Your task to perform on an android device: What's on my calendar tomorrow? Image 0: 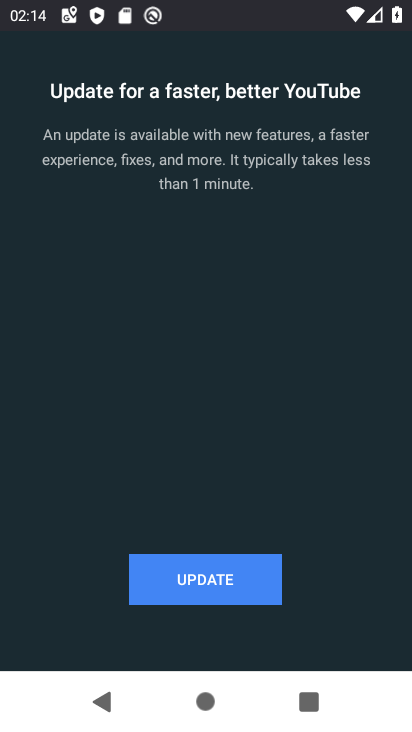
Step 0: drag from (289, 630) to (189, 300)
Your task to perform on an android device: What's on my calendar tomorrow? Image 1: 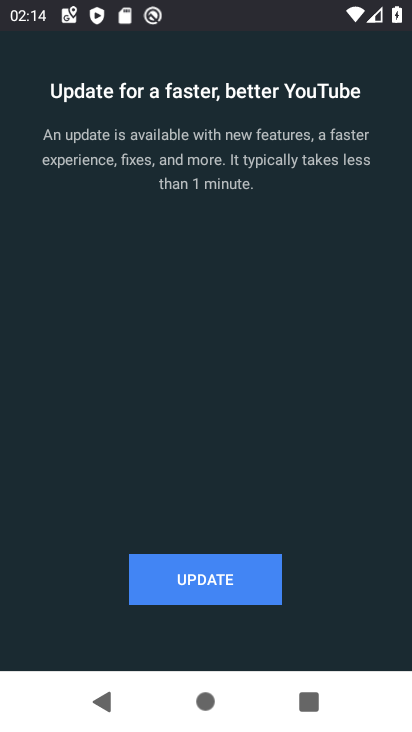
Step 1: press home button
Your task to perform on an android device: What's on my calendar tomorrow? Image 2: 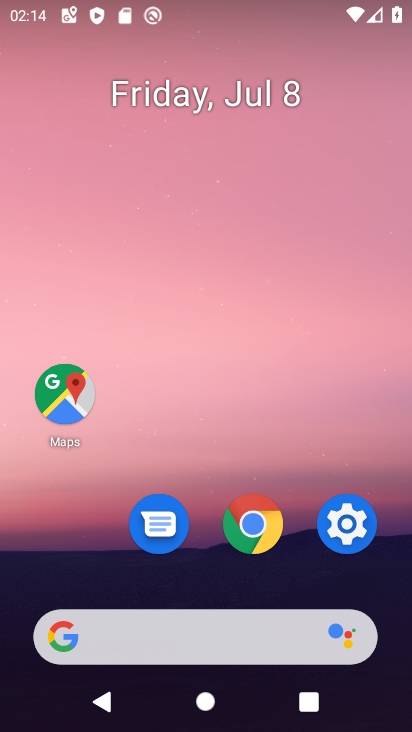
Step 2: drag from (260, 621) to (220, 249)
Your task to perform on an android device: What's on my calendar tomorrow? Image 3: 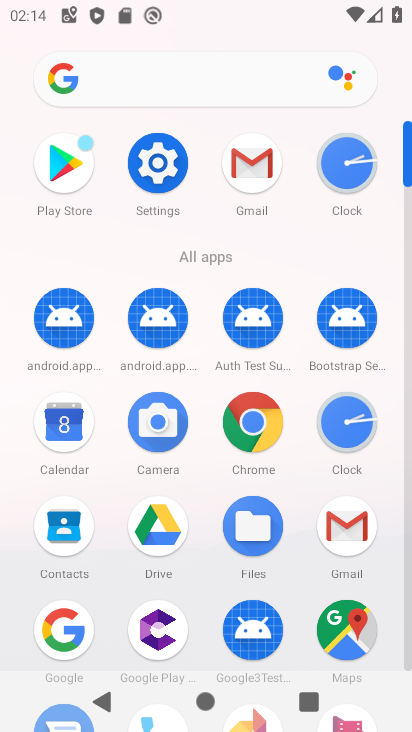
Step 3: drag from (252, 157) to (95, 563)
Your task to perform on an android device: What's on my calendar tomorrow? Image 4: 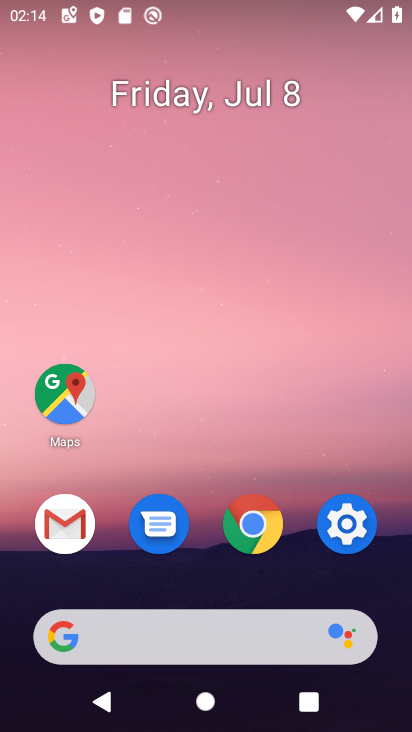
Step 4: click (68, 526)
Your task to perform on an android device: What's on my calendar tomorrow? Image 5: 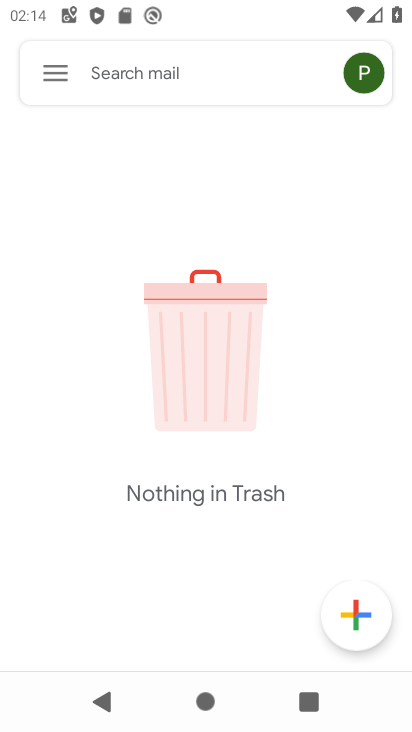
Step 5: press home button
Your task to perform on an android device: What's on my calendar tomorrow? Image 6: 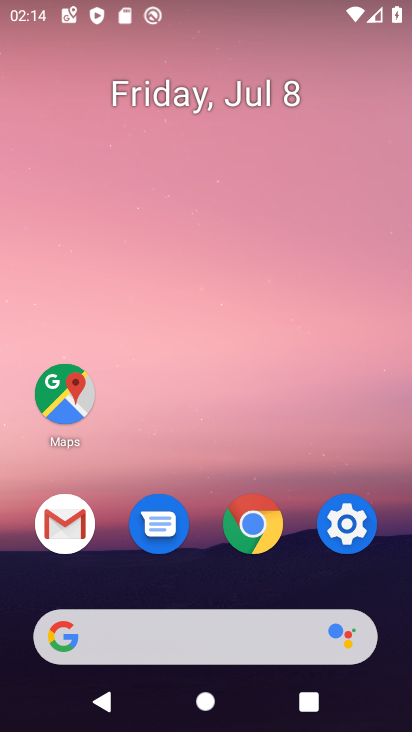
Step 6: click (148, 619)
Your task to perform on an android device: What's on my calendar tomorrow? Image 7: 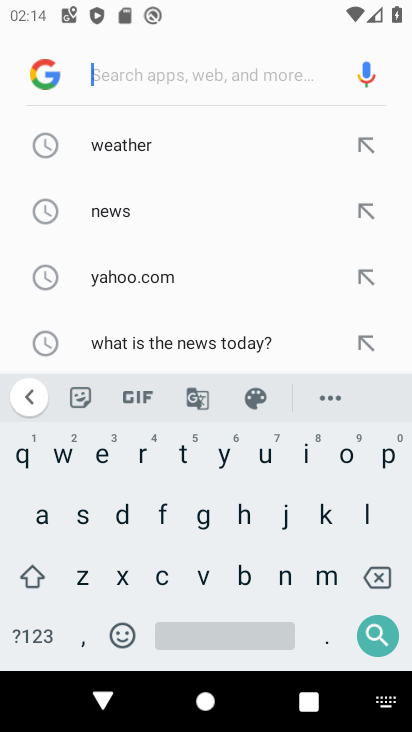
Step 7: press home button
Your task to perform on an android device: What's on my calendar tomorrow? Image 8: 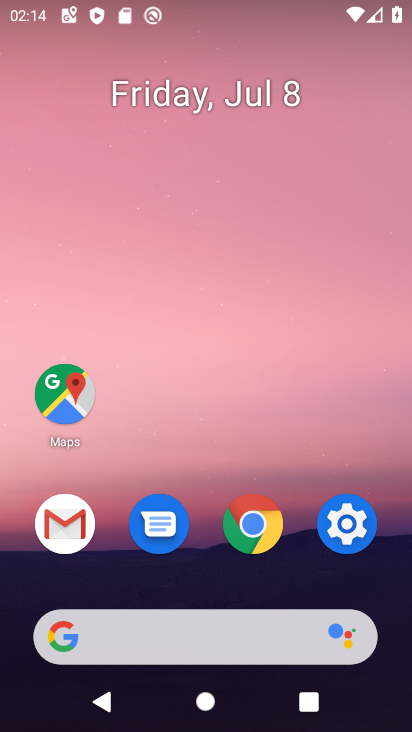
Step 8: drag from (285, 642) to (232, 279)
Your task to perform on an android device: What's on my calendar tomorrow? Image 9: 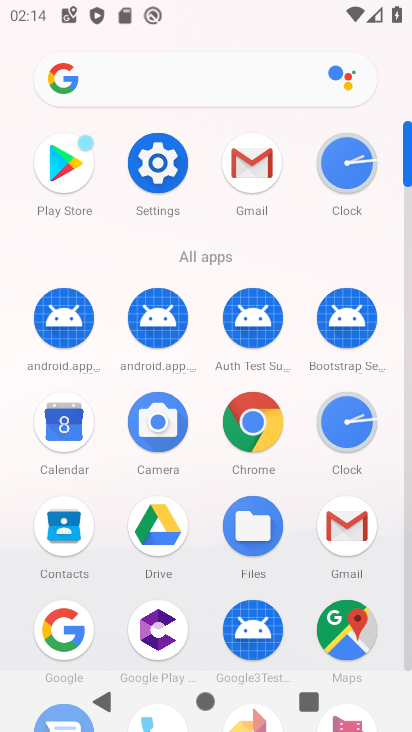
Step 9: click (80, 424)
Your task to perform on an android device: What's on my calendar tomorrow? Image 10: 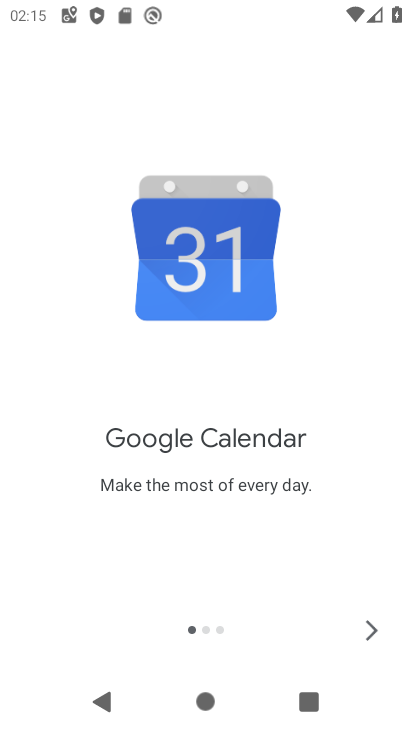
Step 10: click (368, 627)
Your task to perform on an android device: What's on my calendar tomorrow? Image 11: 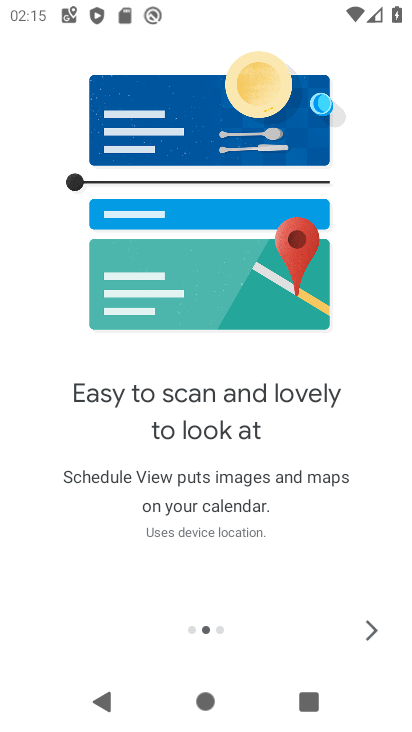
Step 11: click (372, 621)
Your task to perform on an android device: What's on my calendar tomorrow? Image 12: 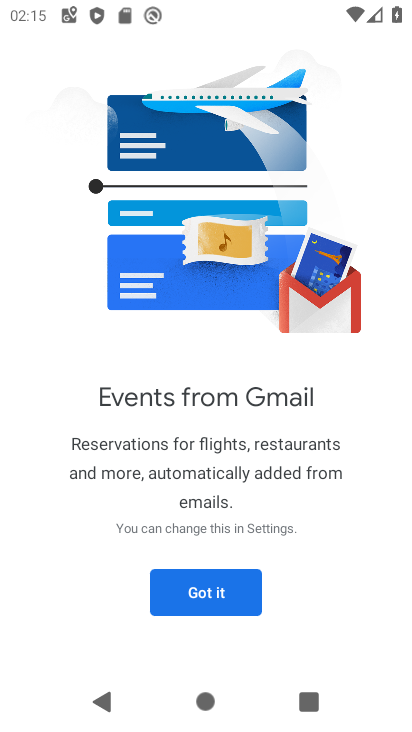
Step 12: click (231, 595)
Your task to perform on an android device: What's on my calendar tomorrow? Image 13: 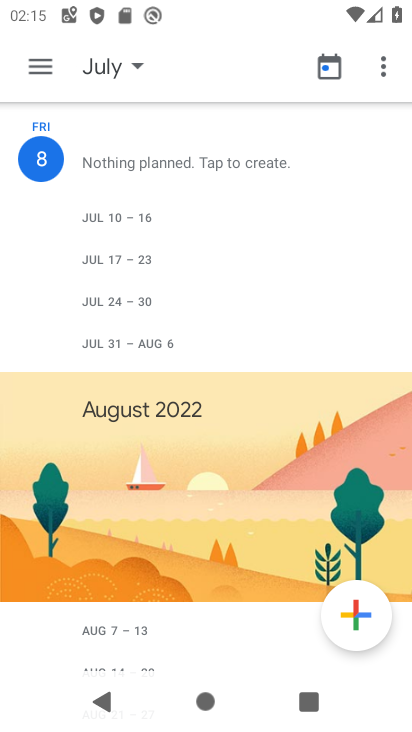
Step 13: click (43, 51)
Your task to perform on an android device: What's on my calendar tomorrow? Image 14: 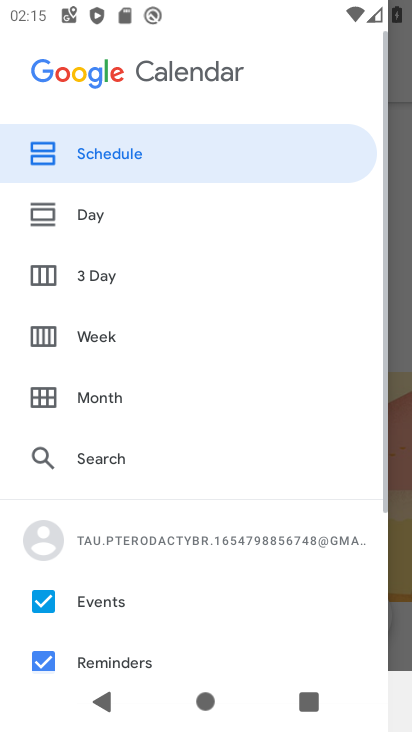
Step 14: click (78, 397)
Your task to perform on an android device: What's on my calendar tomorrow? Image 15: 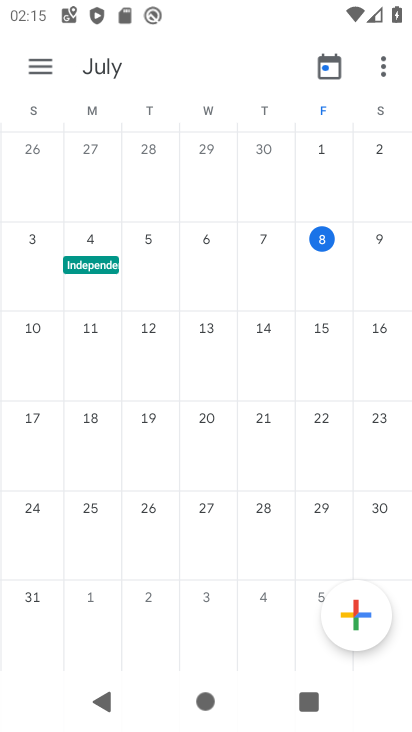
Step 15: click (386, 279)
Your task to perform on an android device: What's on my calendar tomorrow? Image 16: 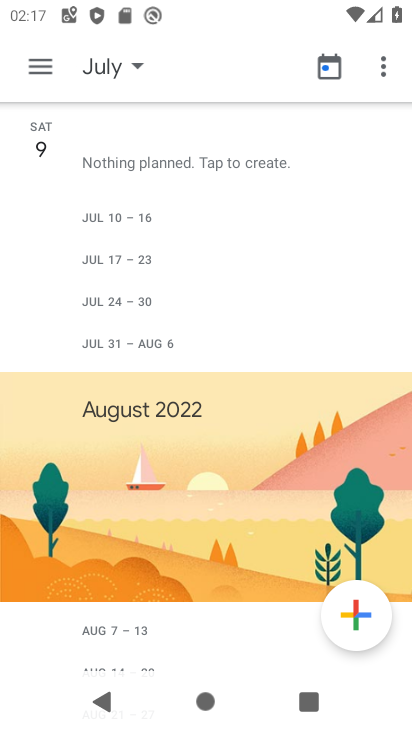
Step 16: task complete